Your task to perform on an android device: change the clock display to digital Image 0: 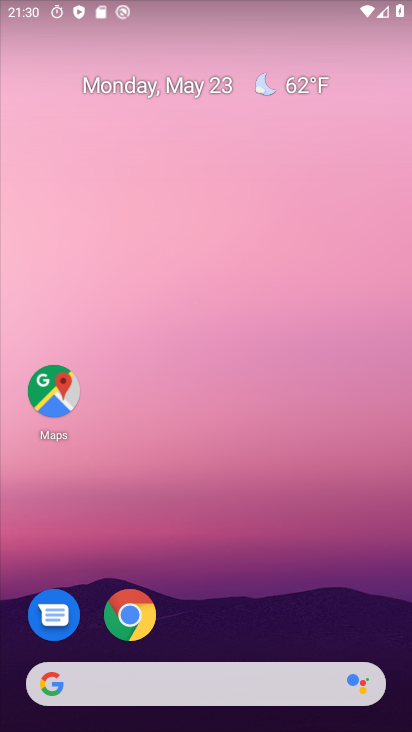
Step 0: drag from (258, 607) to (285, 127)
Your task to perform on an android device: change the clock display to digital Image 1: 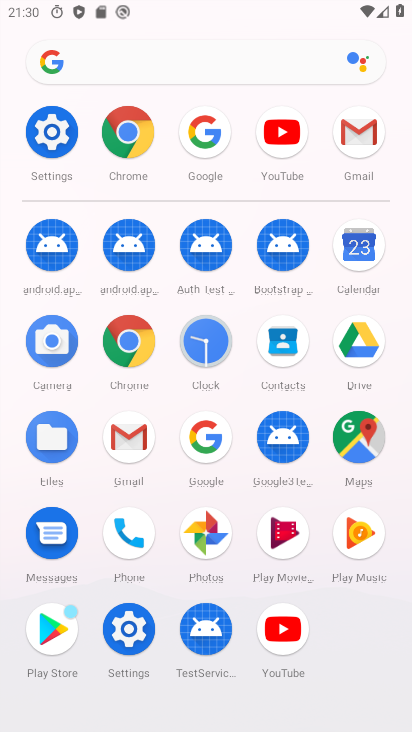
Step 1: click (206, 345)
Your task to perform on an android device: change the clock display to digital Image 2: 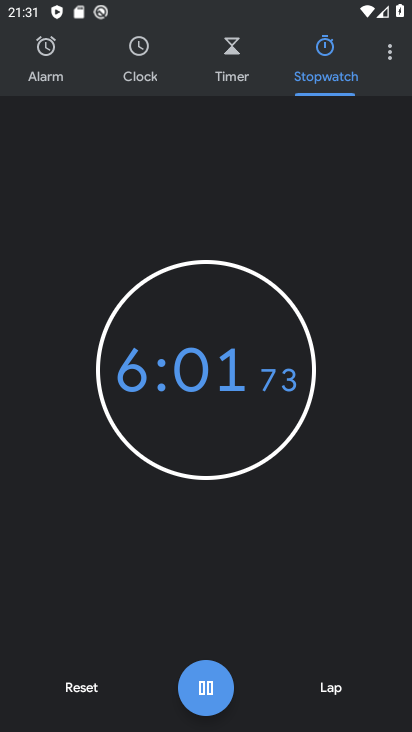
Step 2: click (385, 54)
Your task to perform on an android device: change the clock display to digital Image 3: 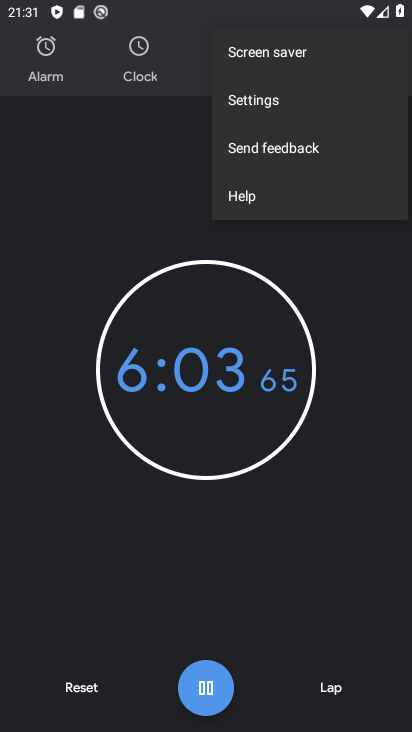
Step 3: click (273, 108)
Your task to perform on an android device: change the clock display to digital Image 4: 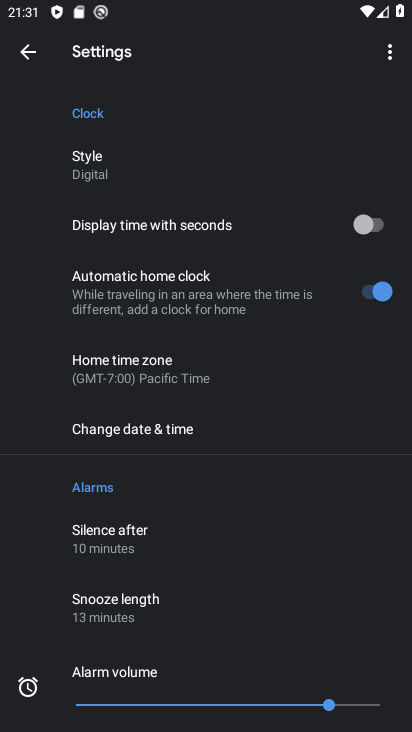
Step 4: task complete